Your task to perform on an android device: delete a single message in the gmail app Image 0: 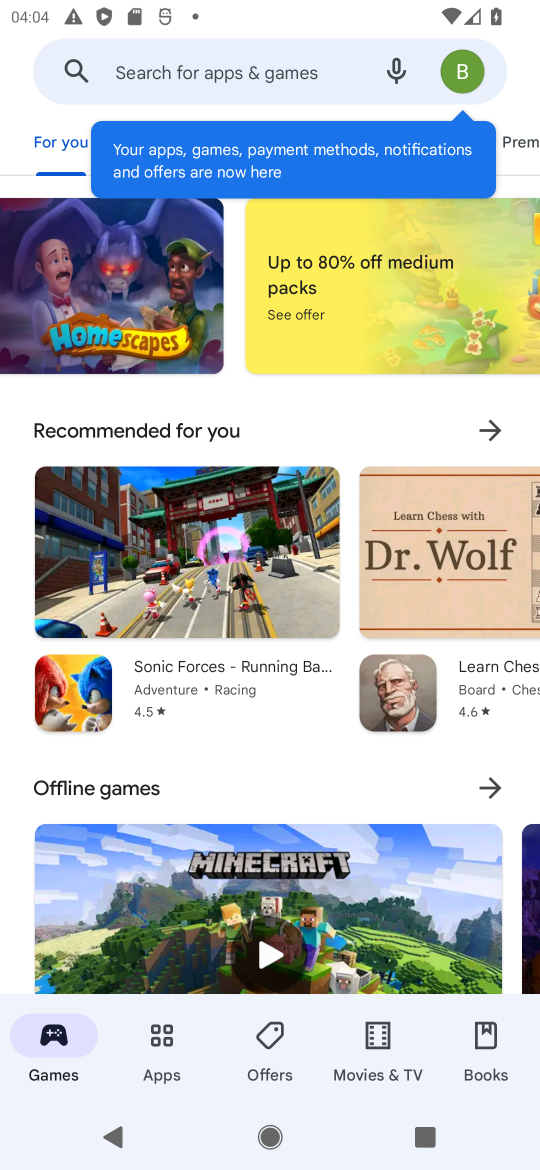
Step 0: press home button
Your task to perform on an android device: delete a single message in the gmail app Image 1: 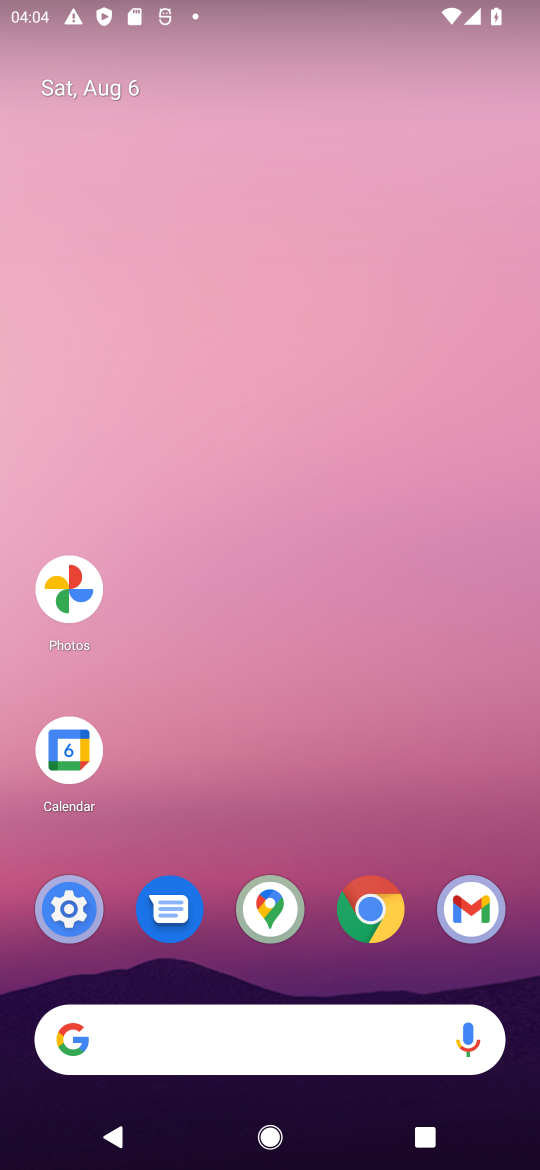
Step 1: click (465, 912)
Your task to perform on an android device: delete a single message in the gmail app Image 2: 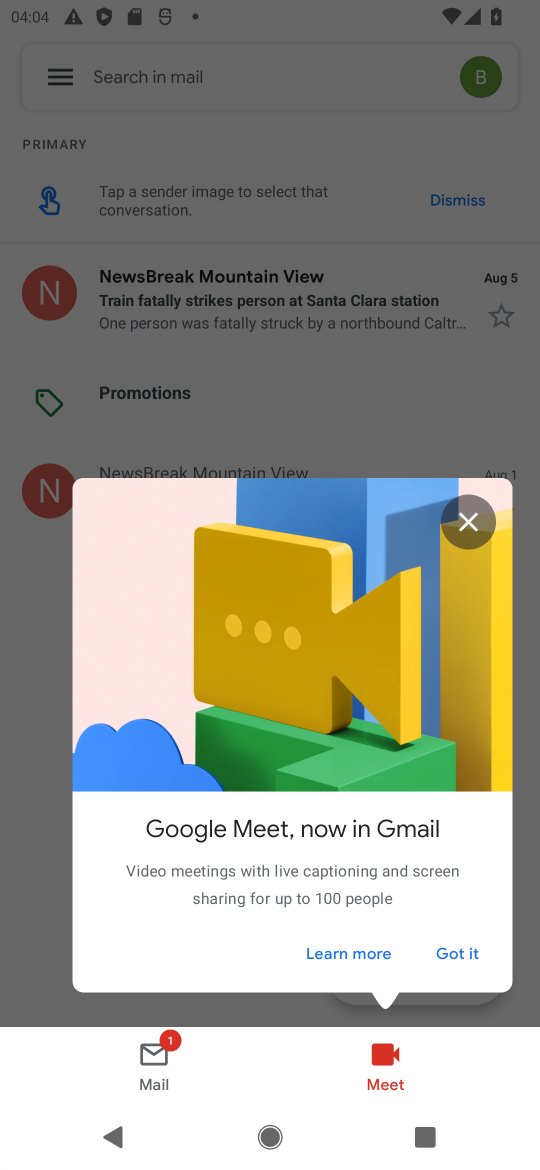
Step 2: click (451, 949)
Your task to perform on an android device: delete a single message in the gmail app Image 3: 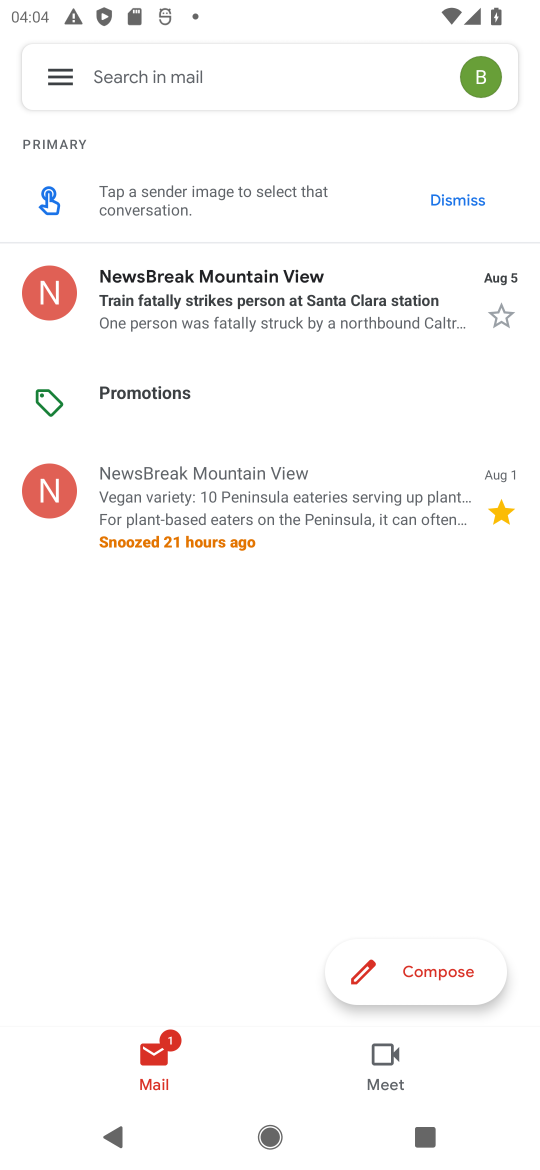
Step 3: click (47, 67)
Your task to perform on an android device: delete a single message in the gmail app Image 4: 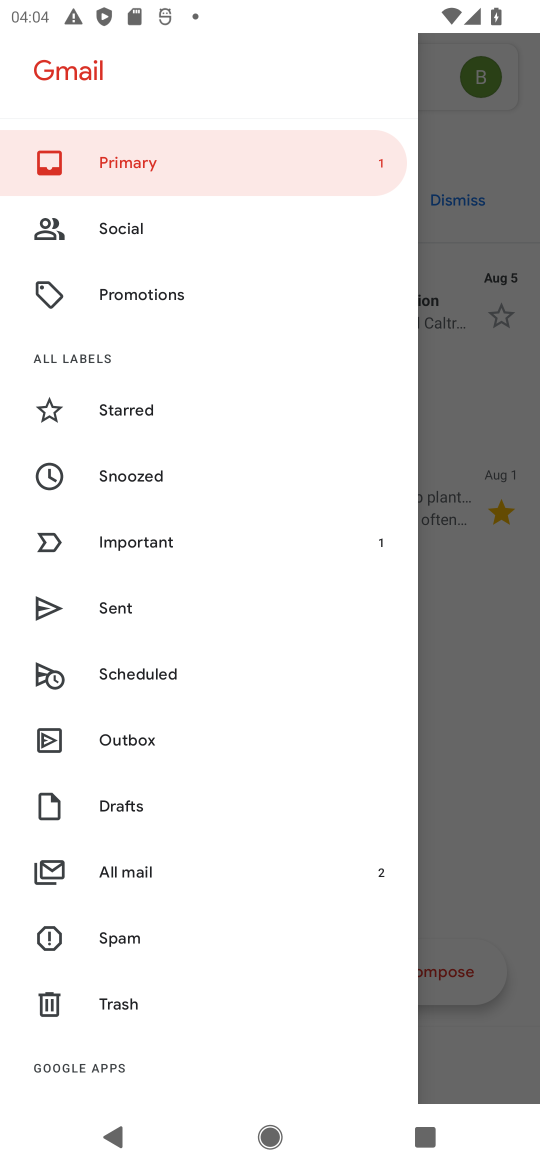
Step 4: click (127, 871)
Your task to perform on an android device: delete a single message in the gmail app Image 5: 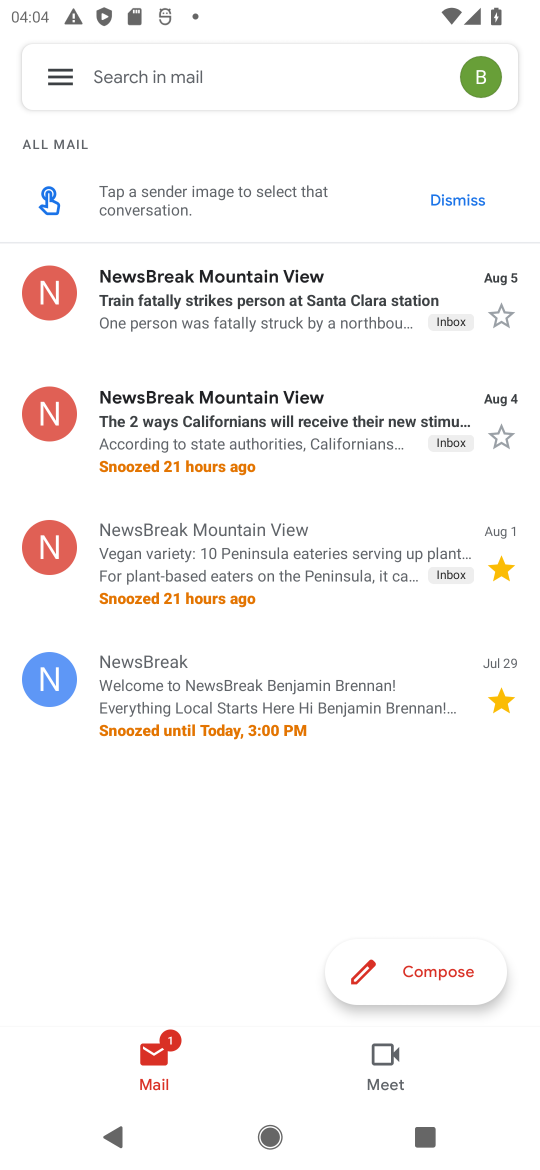
Step 5: click (303, 282)
Your task to perform on an android device: delete a single message in the gmail app Image 6: 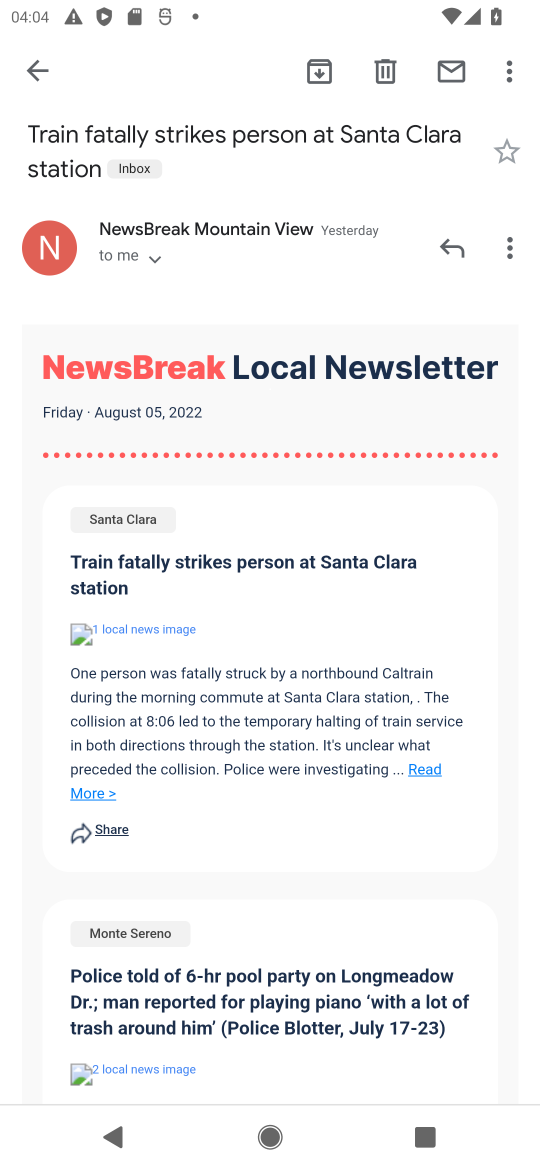
Step 6: click (381, 61)
Your task to perform on an android device: delete a single message in the gmail app Image 7: 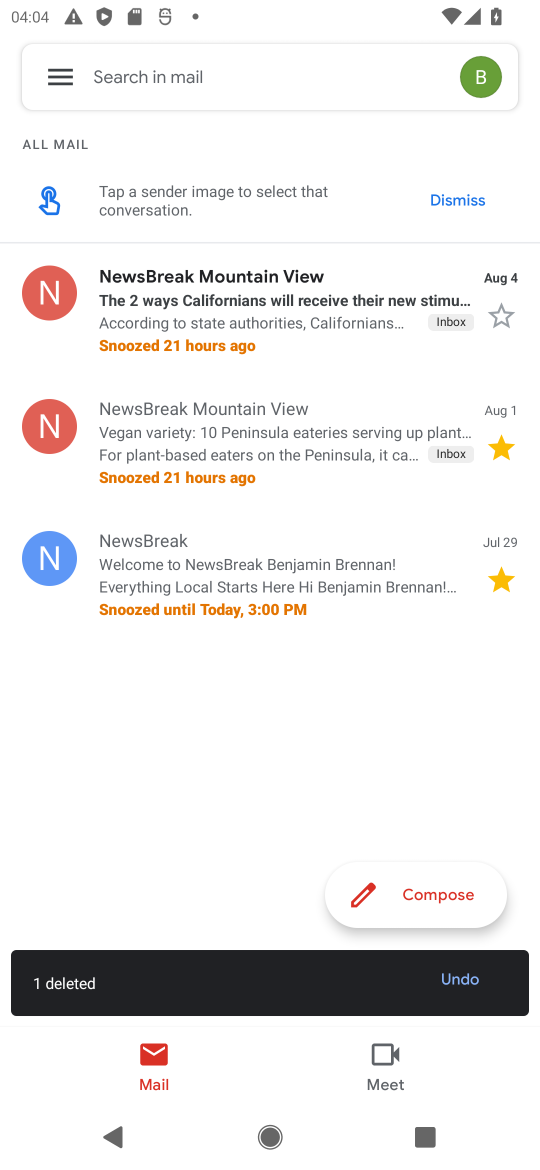
Step 7: task complete